Your task to perform on an android device: Go to calendar. Show me events next week Image 0: 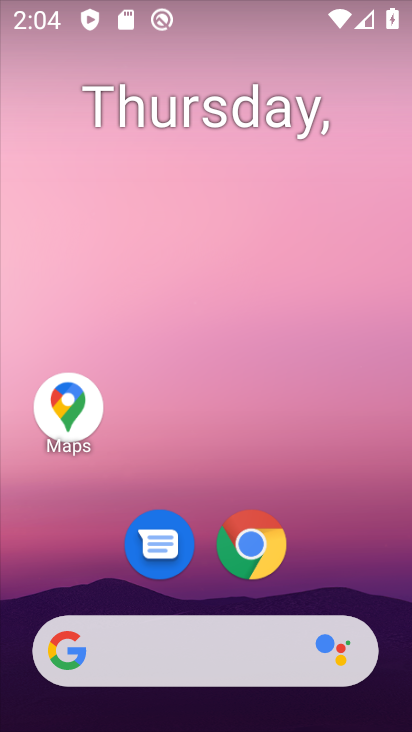
Step 0: drag from (376, 536) to (243, 74)
Your task to perform on an android device: Go to calendar. Show me events next week Image 1: 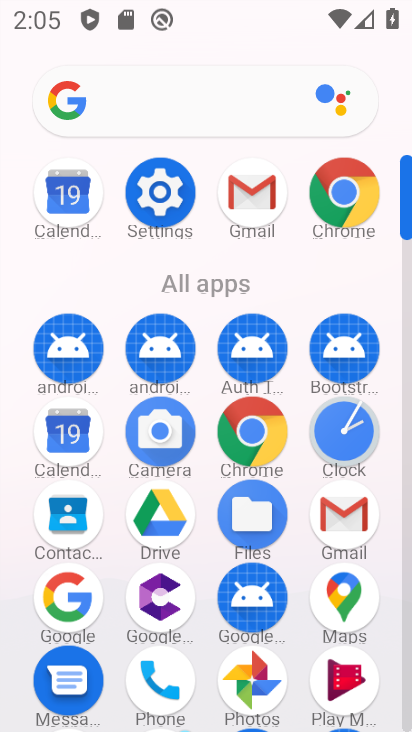
Step 1: click (70, 203)
Your task to perform on an android device: Go to calendar. Show me events next week Image 2: 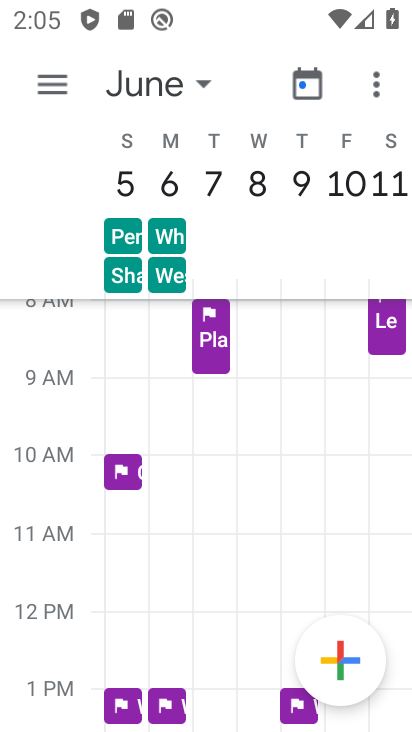
Step 2: click (161, 86)
Your task to perform on an android device: Go to calendar. Show me events next week Image 3: 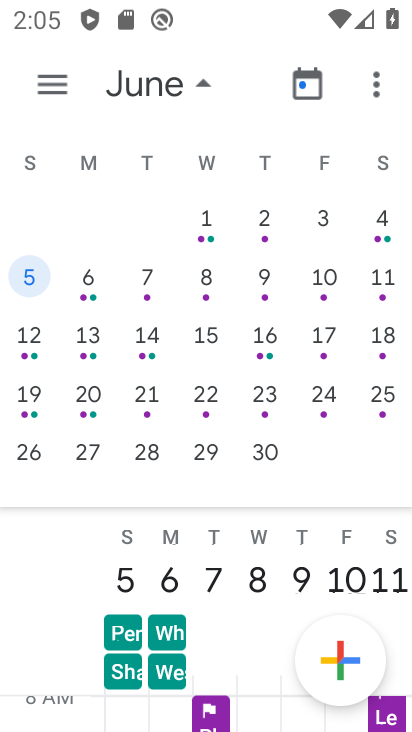
Step 3: drag from (56, 303) to (375, 314)
Your task to perform on an android device: Go to calendar. Show me events next week Image 4: 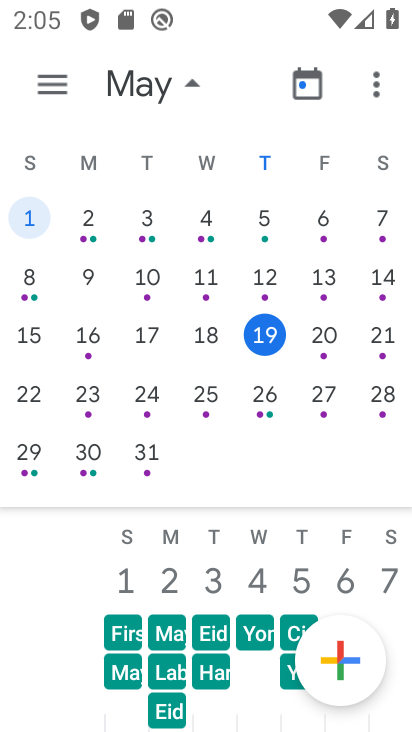
Step 4: click (22, 393)
Your task to perform on an android device: Go to calendar. Show me events next week Image 5: 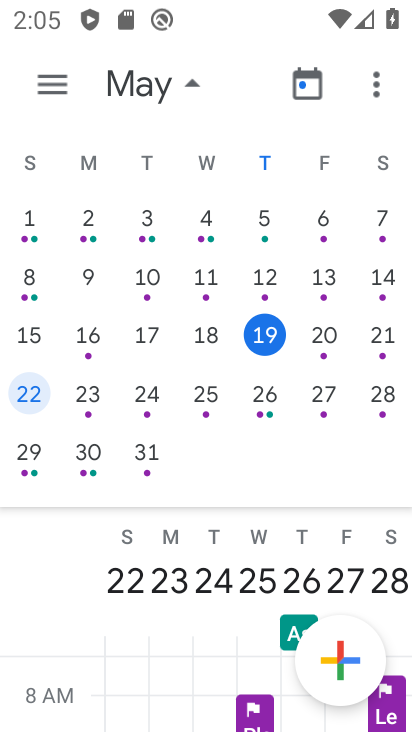
Step 5: drag from (172, 495) to (173, 89)
Your task to perform on an android device: Go to calendar. Show me events next week Image 6: 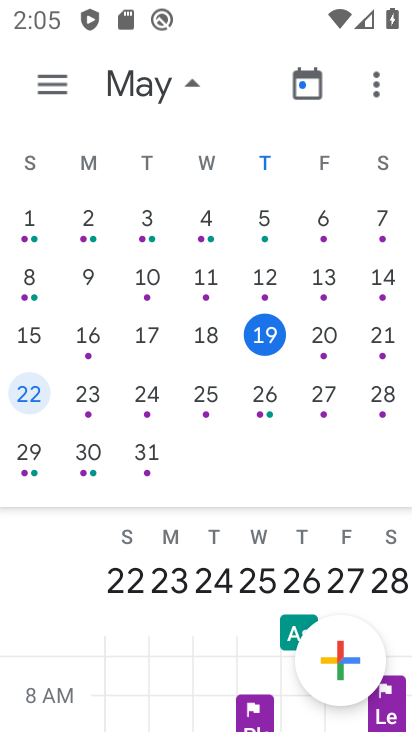
Step 6: click (173, 89)
Your task to perform on an android device: Go to calendar. Show me events next week Image 7: 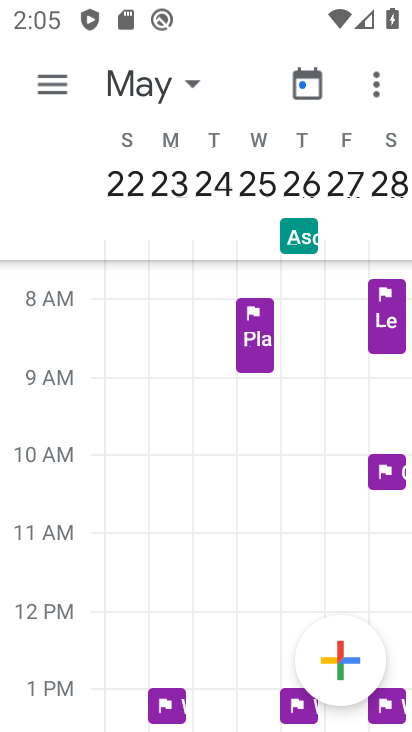
Step 7: click (59, 84)
Your task to perform on an android device: Go to calendar. Show me events next week Image 8: 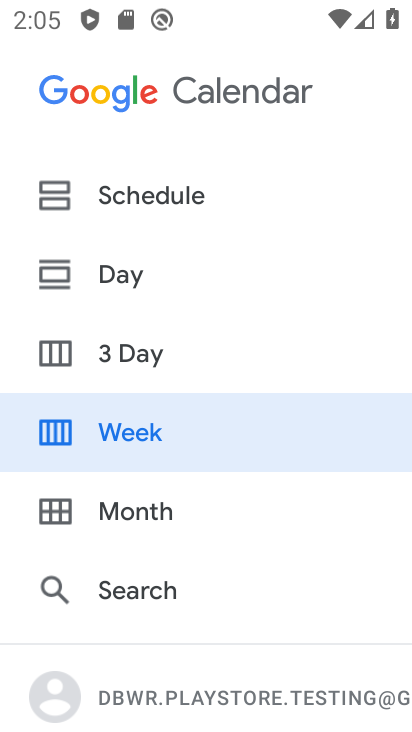
Step 8: click (113, 193)
Your task to perform on an android device: Go to calendar. Show me events next week Image 9: 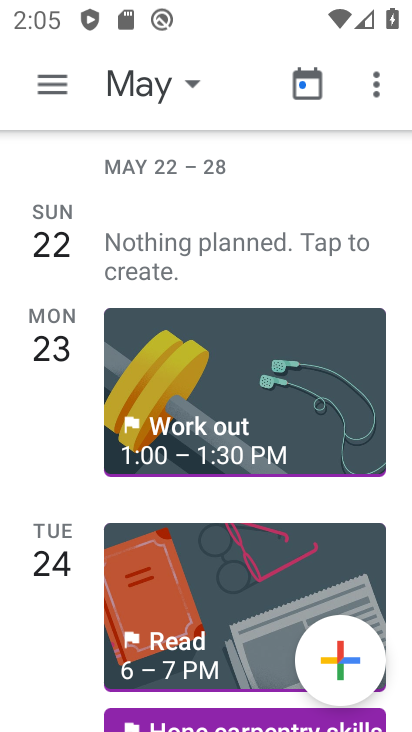
Step 9: task complete